Your task to perform on an android device: Open Google Chrome and open the bookmarks view Image 0: 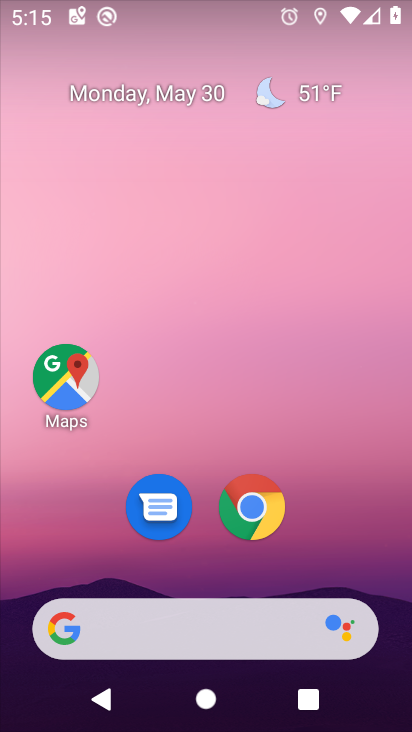
Step 0: click (250, 530)
Your task to perform on an android device: Open Google Chrome and open the bookmarks view Image 1: 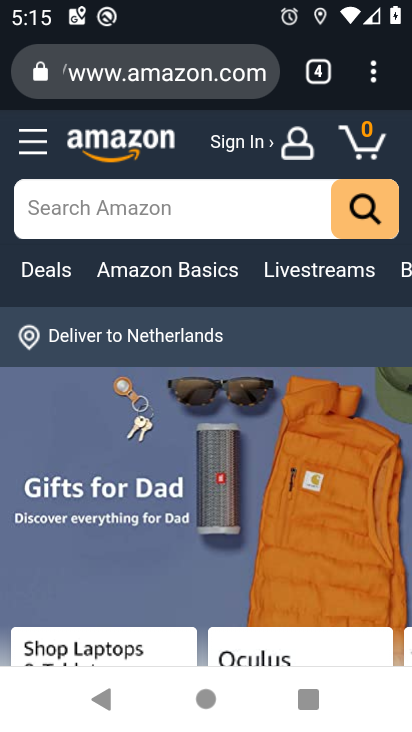
Step 1: drag from (382, 67) to (243, 268)
Your task to perform on an android device: Open Google Chrome and open the bookmarks view Image 2: 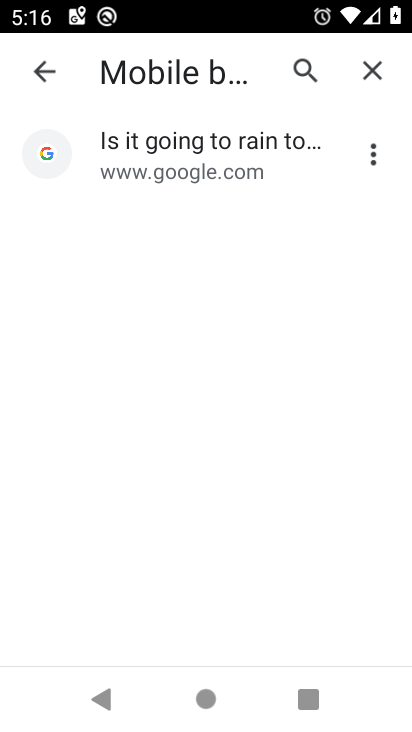
Step 2: click (367, 146)
Your task to perform on an android device: Open Google Chrome and open the bookmarks view Image 3: 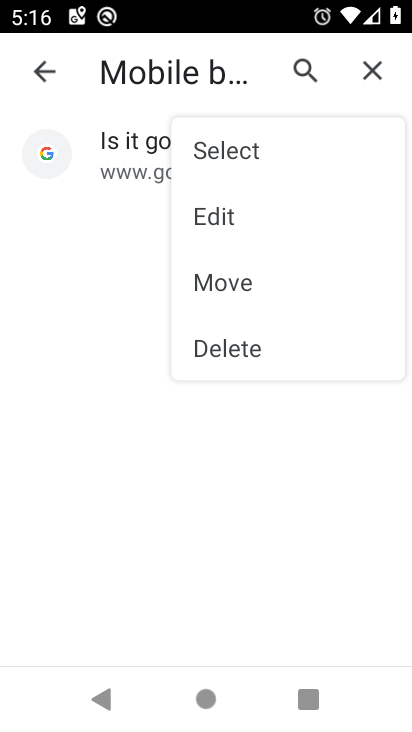
Step 3: click (77, 244)
Your task to perform on an android device: Open Google Chrome and open the bookmarks view Image 4: 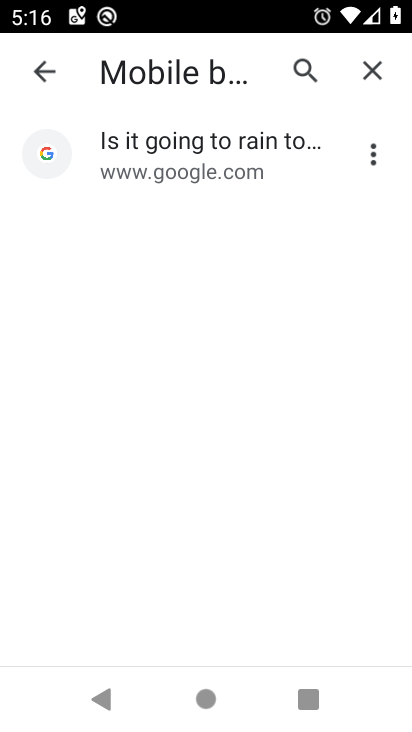
Step 4: task complete